Your task to perform on an android device: toggle notification dots Image 0: 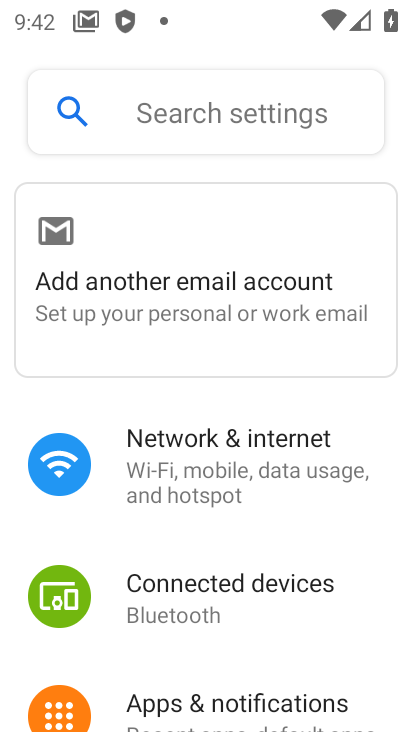
Step 0: click (257, 692)
Your task to perform on an android device: toggle notification dots Image 1: 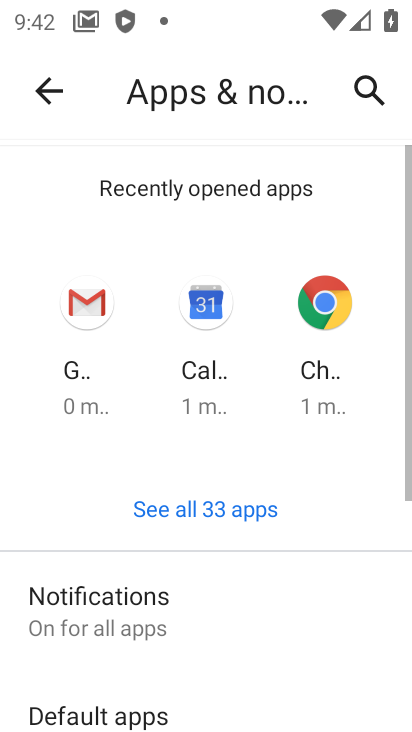
Step 1: drag from (251, 626) to (110, 13)
Your task to perform on an android device: toggle notification dots Image 2: 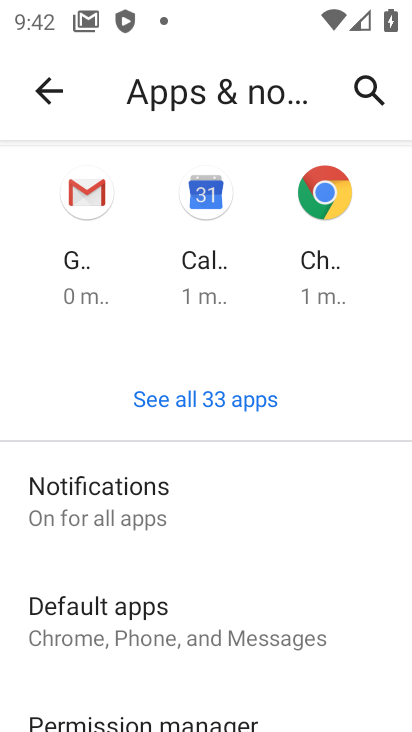
Step 2: click (126, 500)
Your task to perform on an android device: toggle notification dots Image 3: 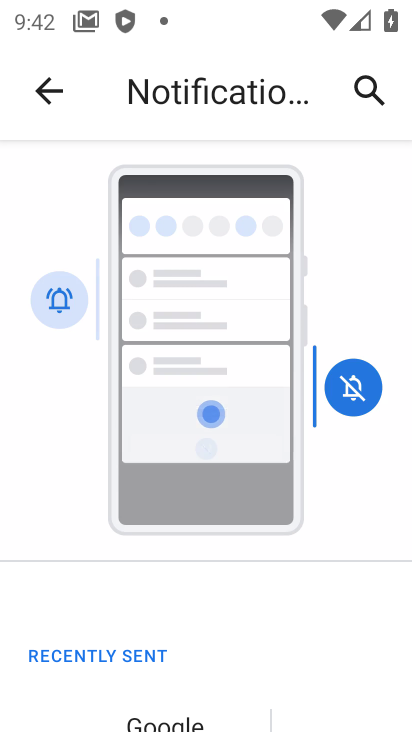
Step 3: drag from (234, 607) to (155, 136)
Your task to perform on an android device: toggle notification dots Image 4: 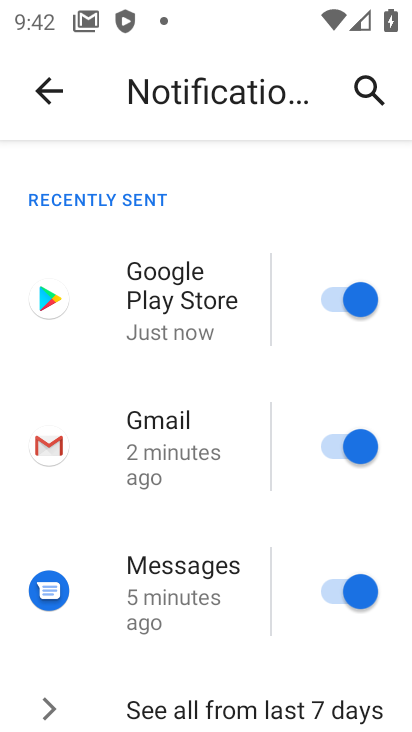
Step 4: drag from (177, 547) to (113, 142)
Your task to perform on an android device: toggle notification dots Image 5: 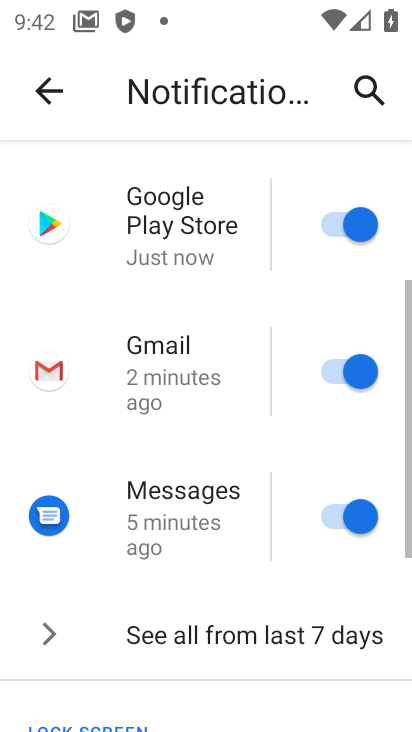
Step 5: drag from (188, 480) to (112, 45)
Your task to perform on an android device: toggle notification dots Image 6: 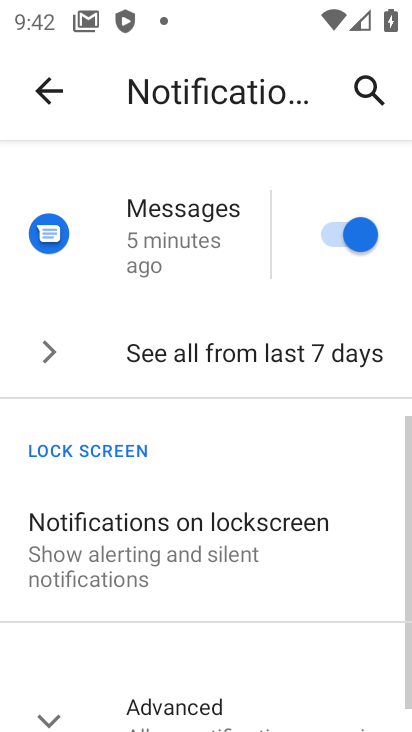
Step 6: drag from (213, 455) to (199, 1)
Your task to perform on an android device: toggle notification dots Image 7: 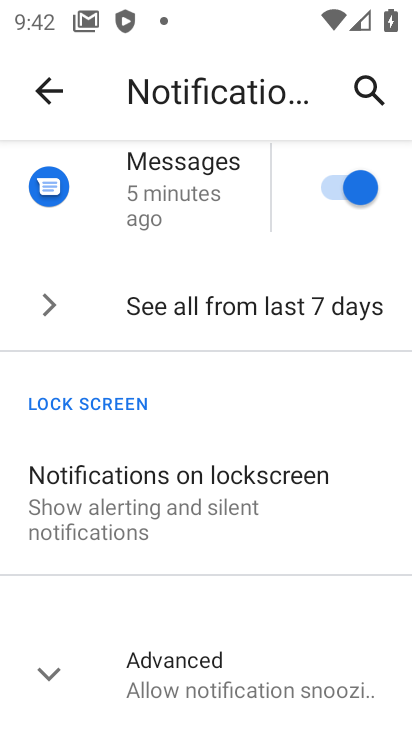
Step 7: click (199, 675)
Your task to perform on an android device: toggle notification dots Image 8: 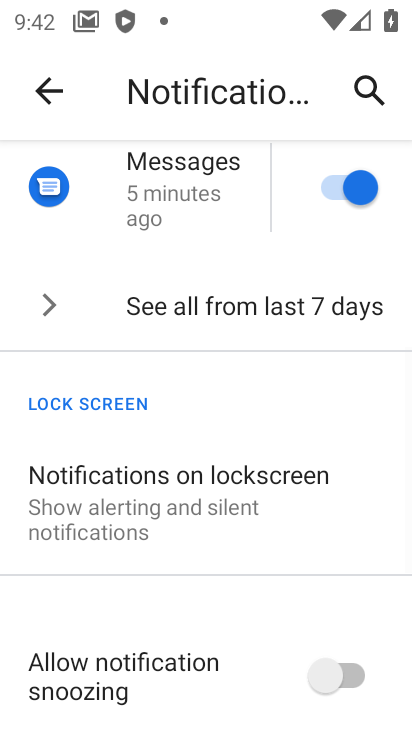
Step 8: drag from (209, 651) to (150, 133)
Your task to perform on an android device: toggle notification dots Image 9: 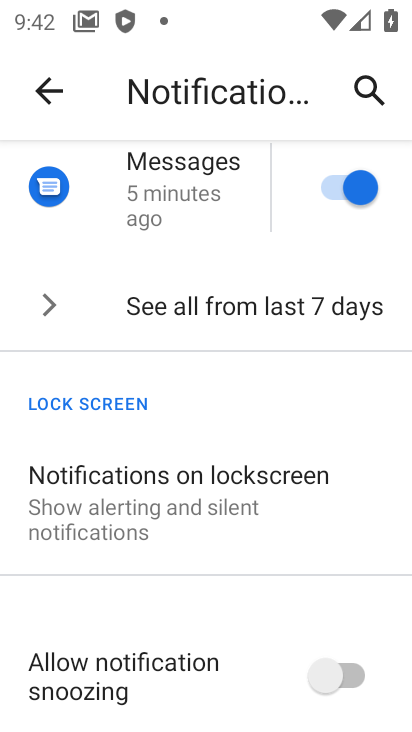
Step 9: drag from (187, 585) to (121, 90)
Your task to perform on an android device: toggle notification dots Image 10: 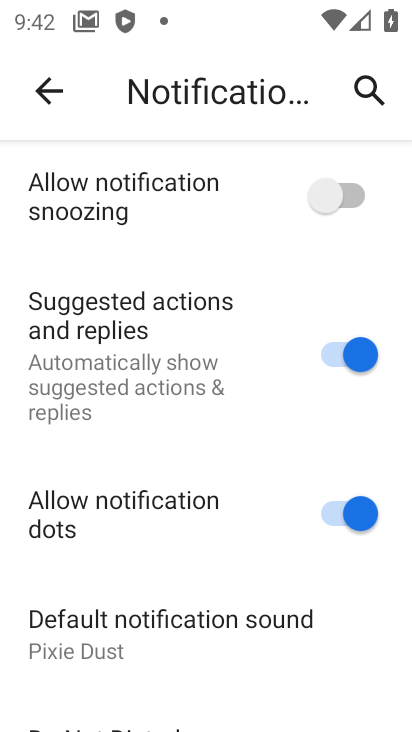
Step 10: click (358, 519)
Your task to perform on an android device: toggle notification dots Image 11: 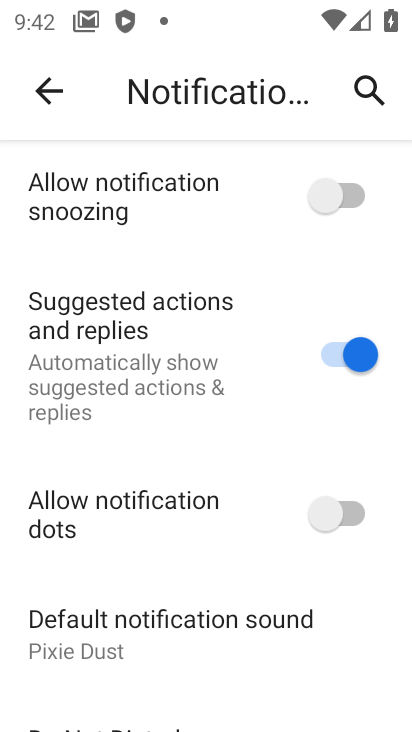
Step 11: task complete